Your task to perform on an android device: Go to privacy settings Image 0: 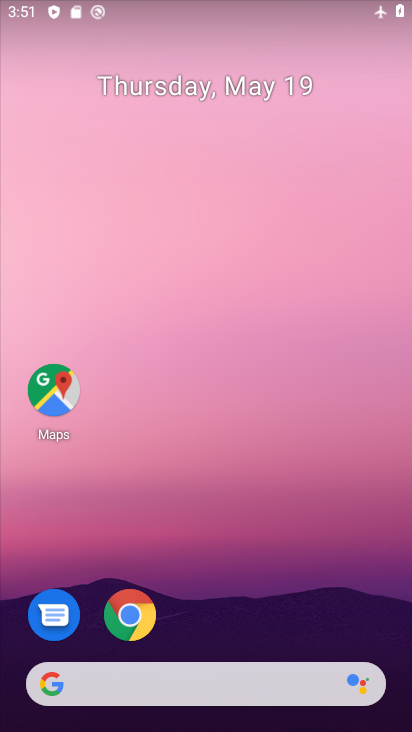
Step 0: drag from (280, 626) to (326, 12)
Your task to perform on an android device: Go to privacy settings Image 1: 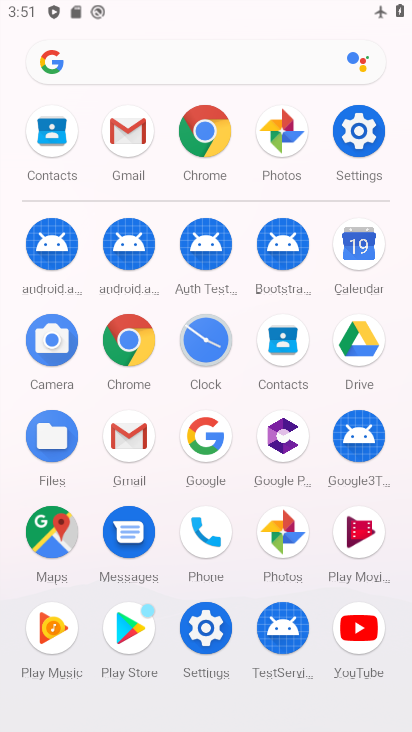
Step 1: click (352, 134)
Your task to perform on an android device: Go to privacy settings Image 2: 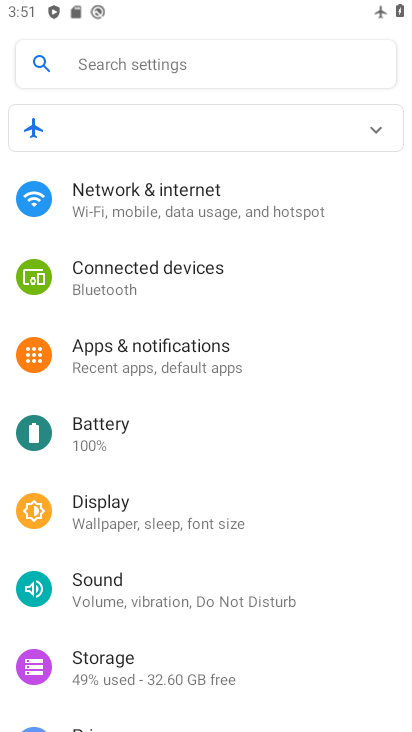
Step 2: drag from (347, 573) to (328, 281)
Your task to perform on an android device: Go to privacy settings Image 3: 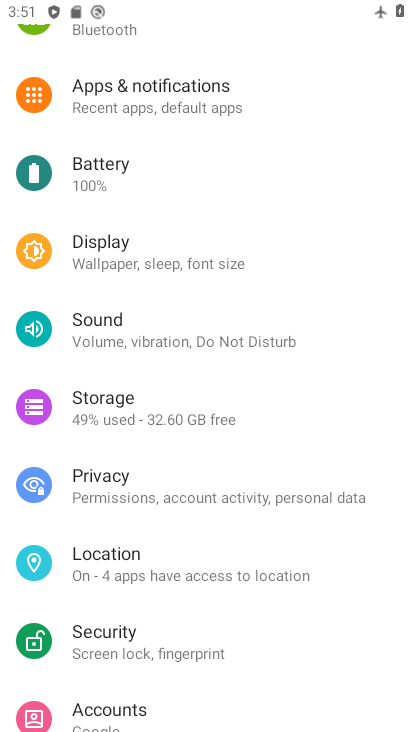
Step 3: click (113, 487)
Your task to perform on an android device: Go to privacy settings Image 4: 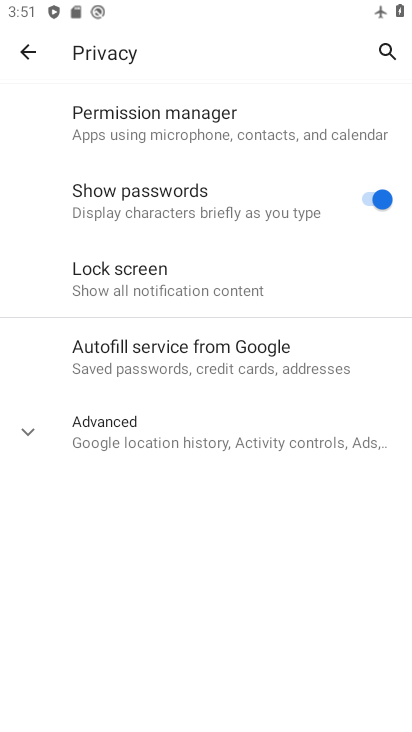
Step 4: task complete